Your task to perform on an android device: set default search engine in the chrome app Image 0: 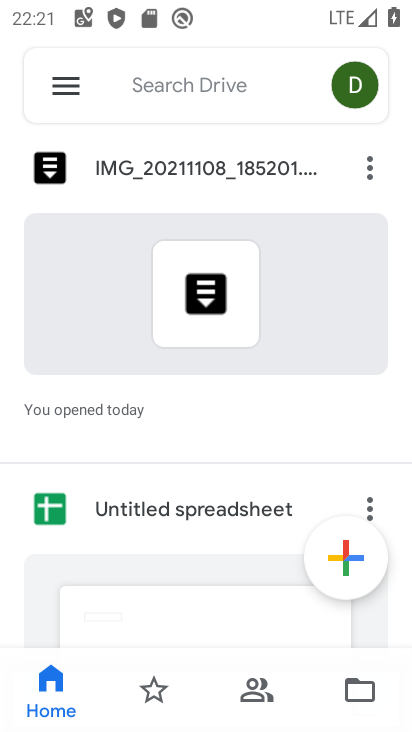
Step 0: press home button
Your task to perform on an android device: set default search engine in the chrome app Image 1: 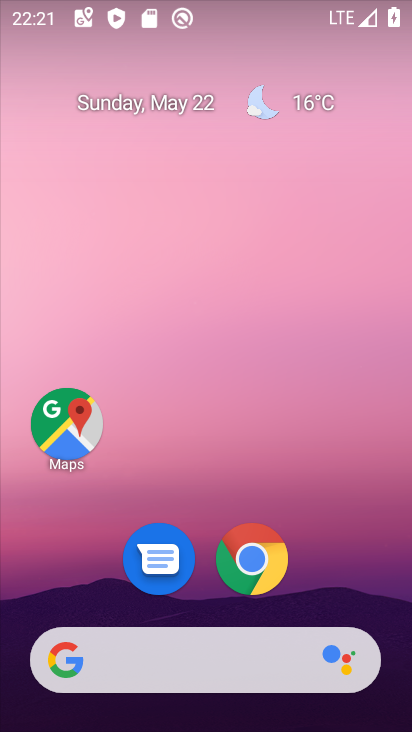
Step 1: drag from (273, 712) to (286, 227)
Your task to perform on an android device: set default search engine in the chrome app Image 2: 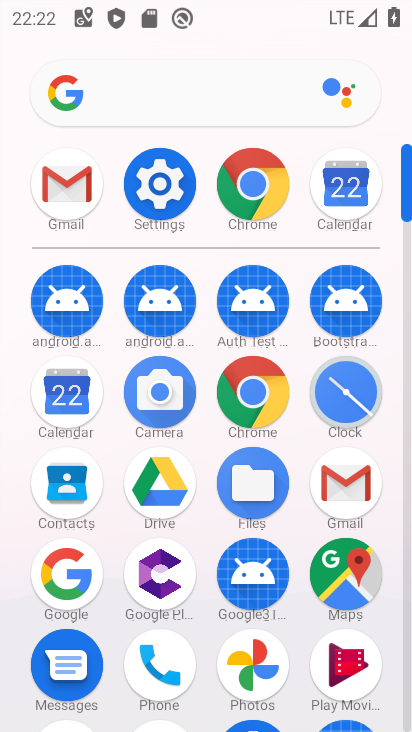
Step 2: click (220, 191)
Your task to perform on an android device: set default search engine in the chrome app Image 3: 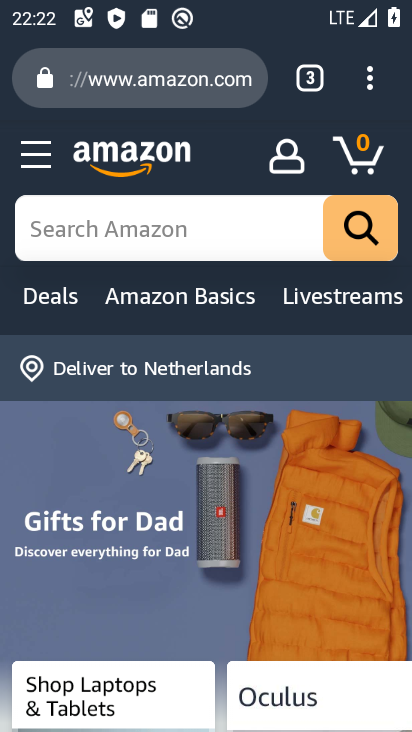
Step 3: click (371, 74)
Your task to perform on an android device: set default search engine in the chrome app Image 4: 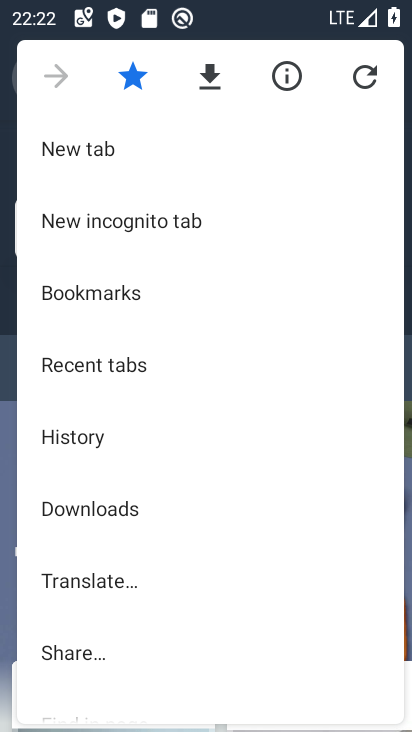
Step 4: drag from (159, 545) to (126, 252)
Your task to perform on an android device: set default search engine in the chrome app Image 5: 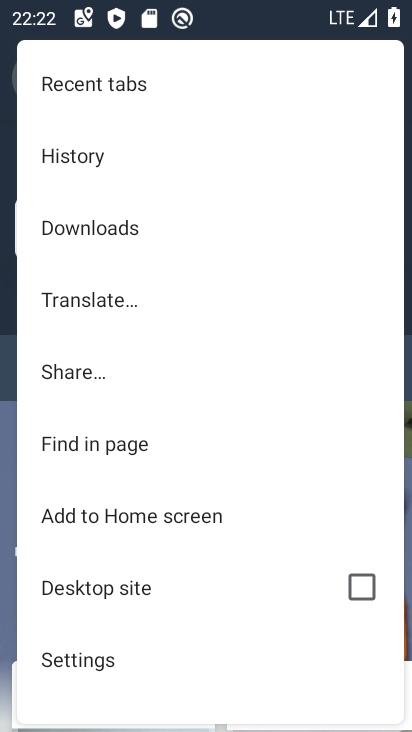
Step 5: drag from (136, 579) to (140, 324)
Your task to perform on an android device: set default search engine in the chrome app Image 6: 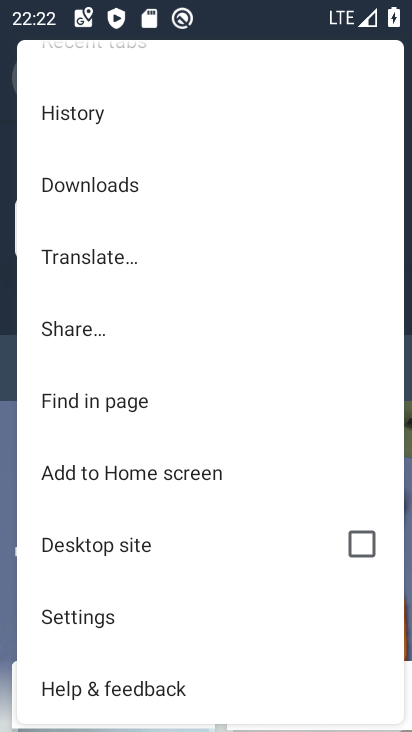
Step 6: click (126, 616)
Your task to perform on an android device: set default search engine in the chrome app Image 7: 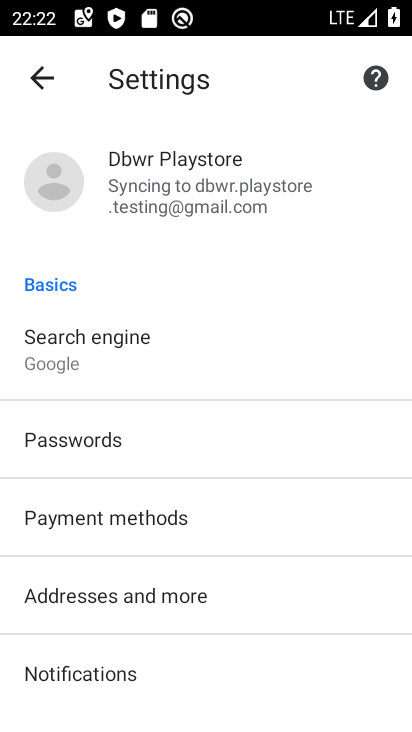
Step 7: drag from (96, 492) to (86, 420)
Your task to perform on an android device: set default search engine in the chrome app Image 8: 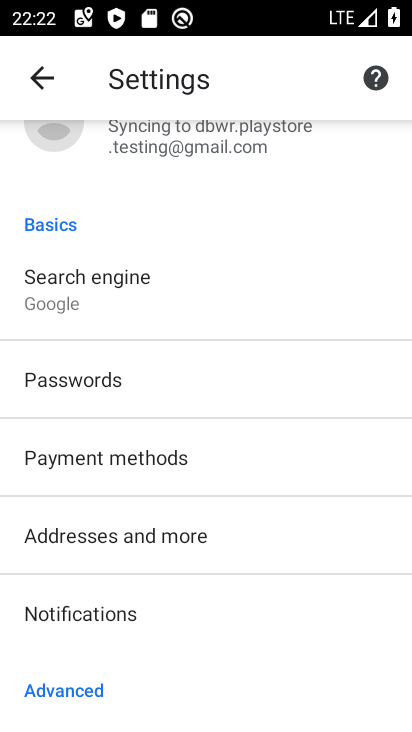
Step 8: click (91, 297)
Your task to perform on an android device: set default search engine in the chrome app Image 9: 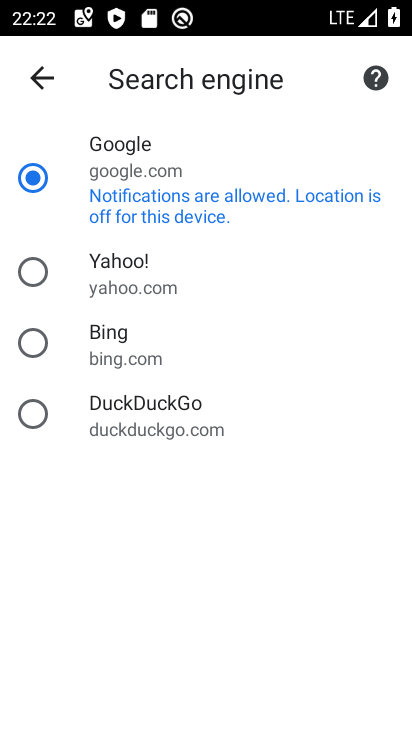
Step 9: task complete